Your task to perform on an android device: Open internet settings Image 0: 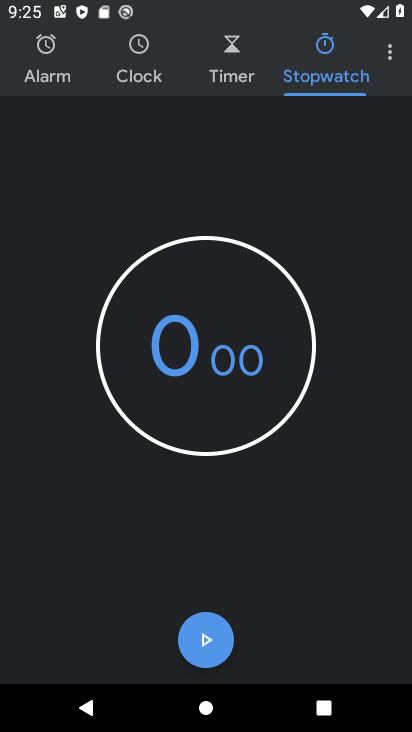
Step 0: press home button
Your task to perform on an android device: Open internet settings Image 1: 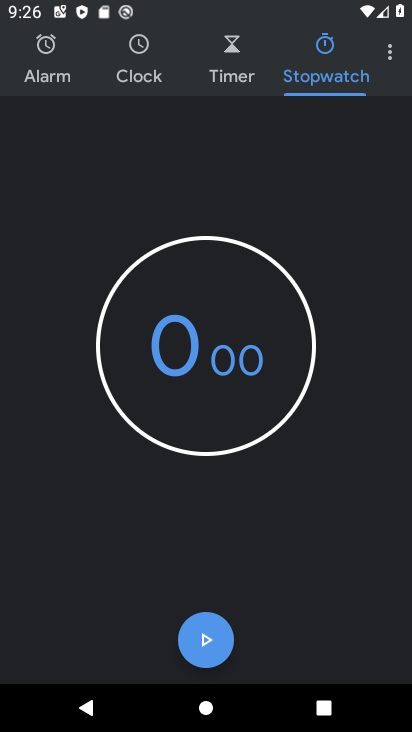
Step 1: press home button
Your task to perform on an android device: Open internet settings Image 2: 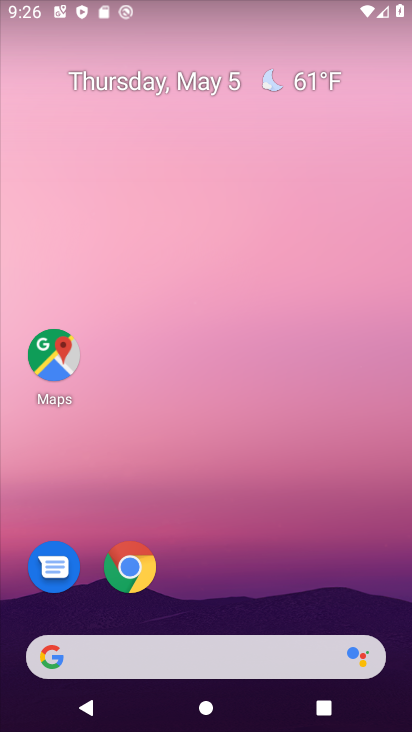
Step 2: drag from (282, 459) to (288, 90)
Your task to perform on an android device: Open internet settings Image 3: 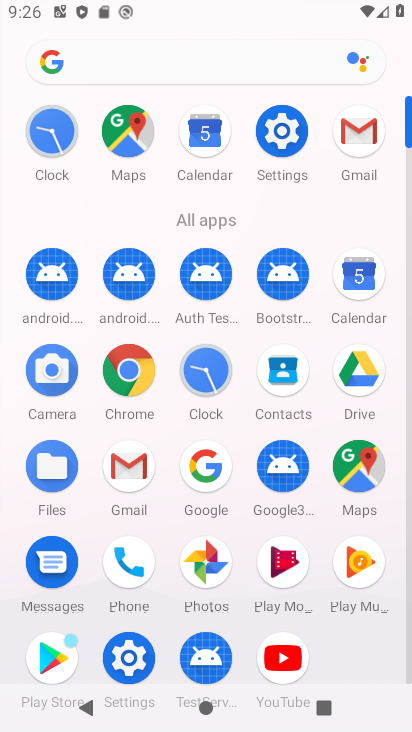
Step 3: click (274, 132)
Your task to perform on an android device: Open internet settings Image 4: 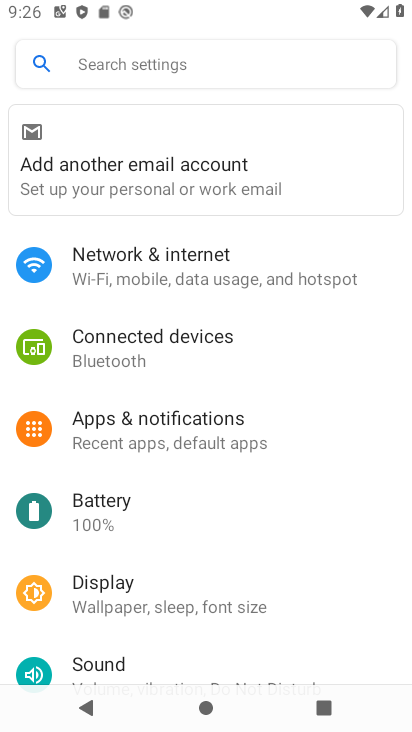
Step 4: click (260, 280)
Your task to perform on an android device: Open internet settings Image 5: 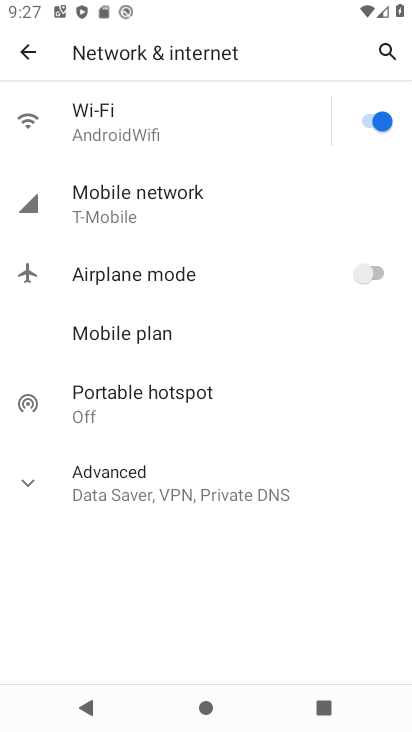
Step 5: task complete